Your task to perform on an android device: star an email in the gmail app Image 0: 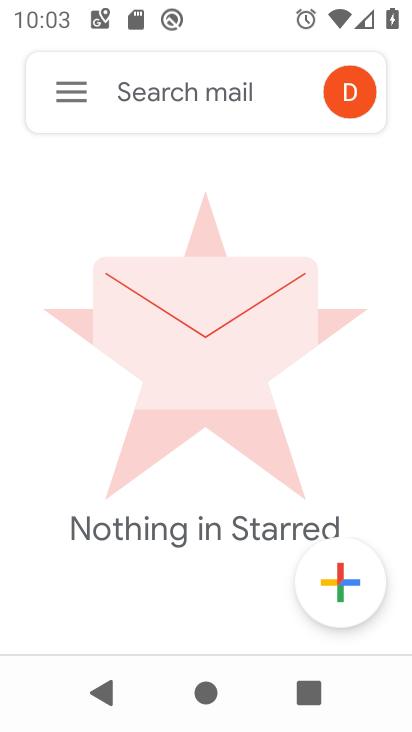
Step 0: drag from (169, 561) to (188, 88)
Your task to perform on an android device: star an email in the gmail app Image 1: 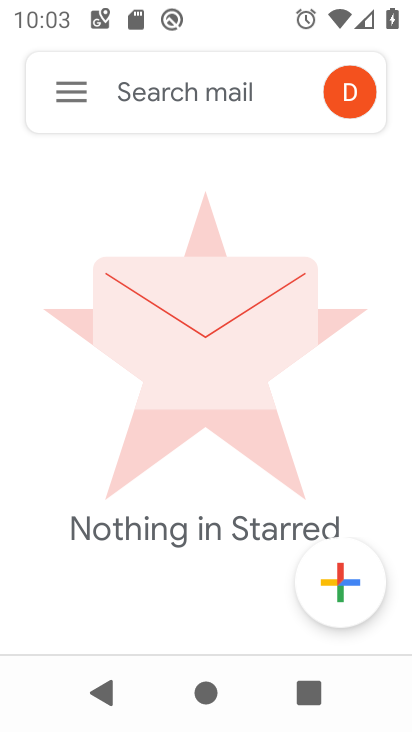
Step 1: drag from (163, 564) to (236, 112)
Your task to perform on an android device: star an email in the gmail app Image 2: 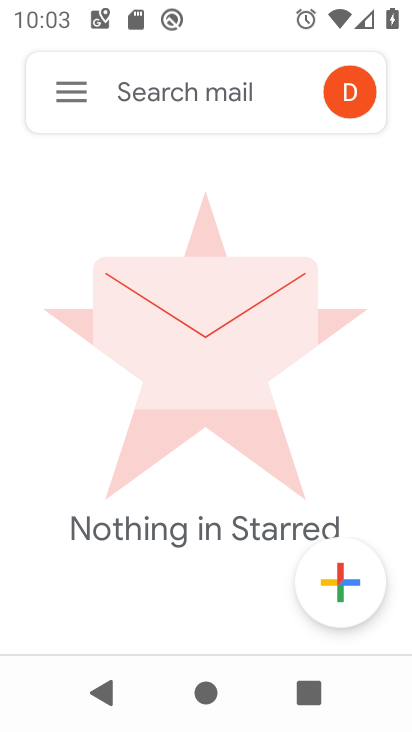
Step 2: drag from (231, 612) to (231, 125)
Your task to perform on an android device: star an email in the gmail app Image 3: 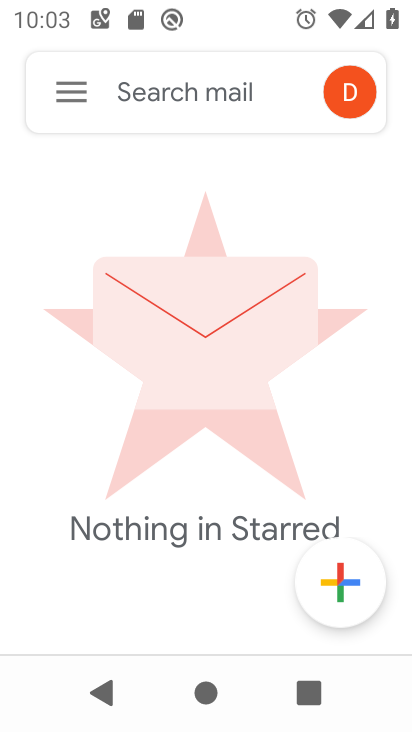
Step 3: drag from (151, 596) to (156, 293)
Your task to perform on an android device: star an email in the gmail app Image 4: 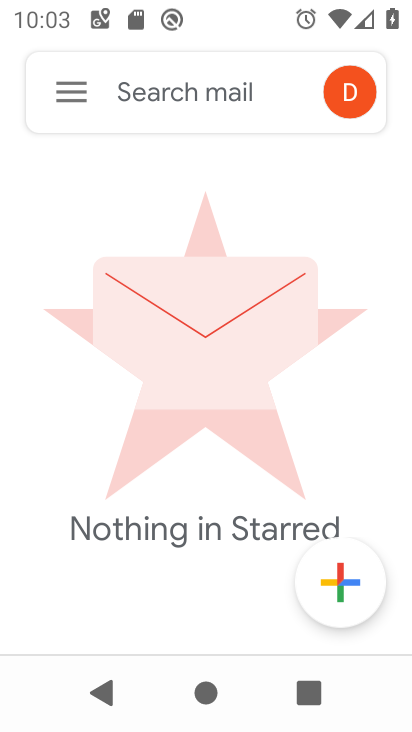
Step 4: click (73, 83)
Your task to perform on an android device: star an email in the gmail app Image 5: 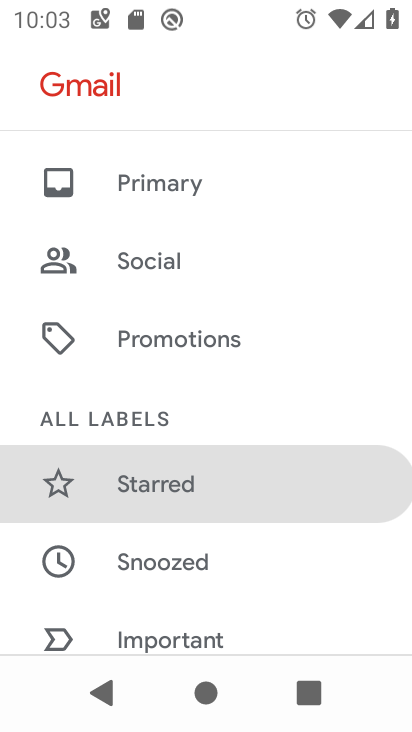
Step 5: drag from (234, 602) to (280, 19)
Your task to perform on an android device: star an email in the gmail app Image 6: 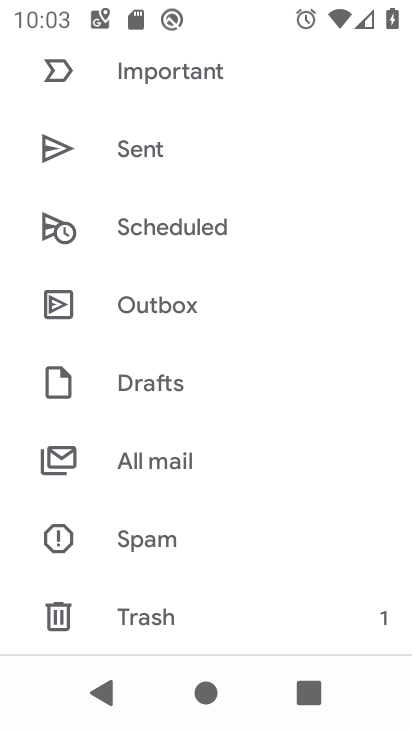
Step 6: drag from (235, 215) to (282, 690)
Your task to perform on an android device: star an email in the gmail app Image 7: 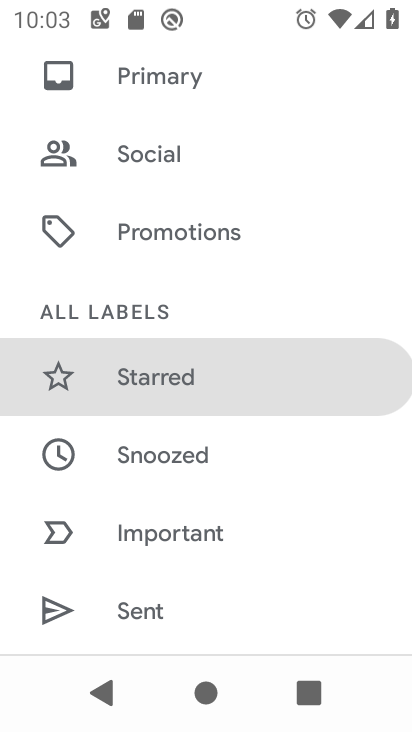
Step 7: click (143, 379)
Your task to perform on an android device: star an email in the gmail app Image 8: 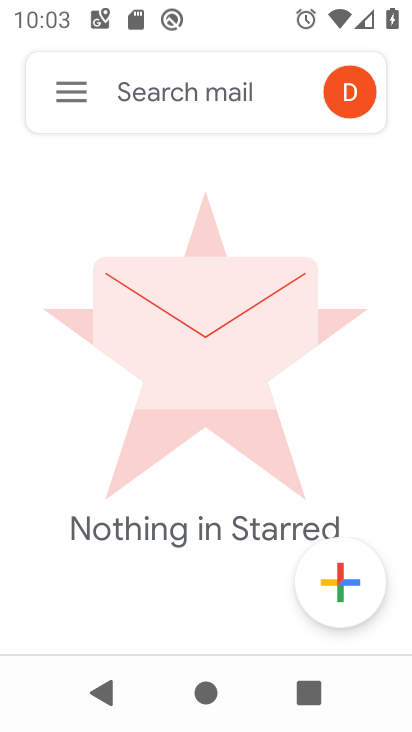
Step 8: task complete